Your task to perform on an android device: Open the phone app and click the voicemail tab. Image 0: 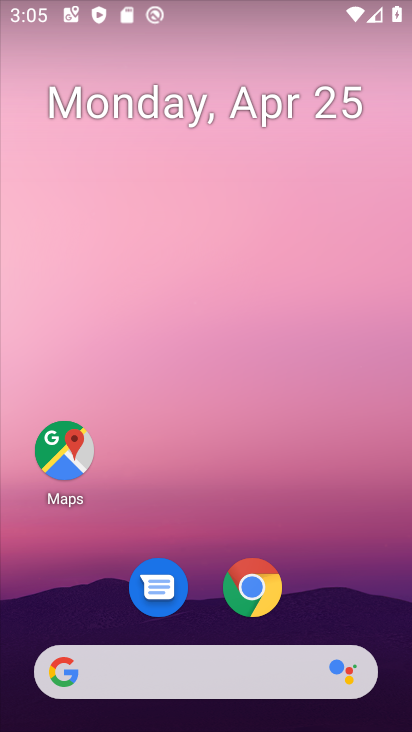
Step 0: drag from (204, 582) to (220, 126)
Your task to perform on an android device: Open the phone app and click the voicemail tab. Image 1: 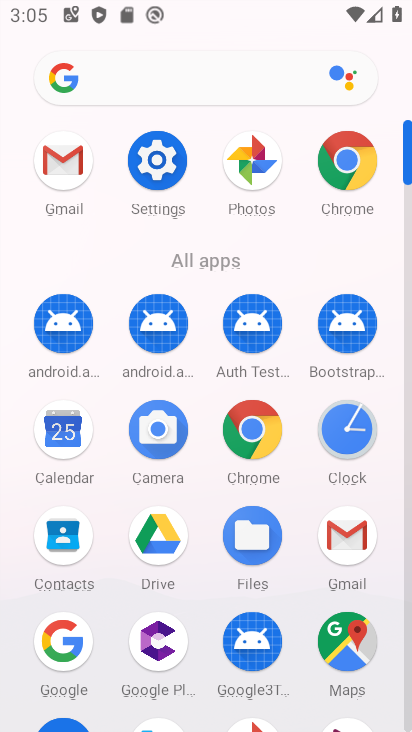
Step 1: drag from (201, 585) to (225, 205)
Your task to perform on an android device: Open the phone app and click the voicemail tab. Image 2: 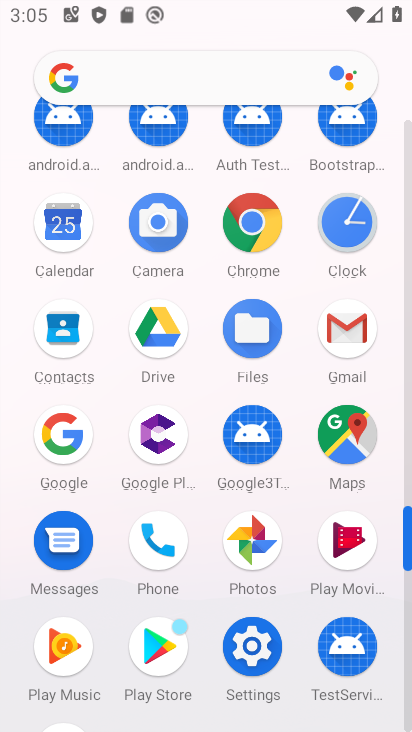
Step 2: click (158, 540)
Your task to perform on an android device: Open the phone app and click the voicemail tab. Image 3: 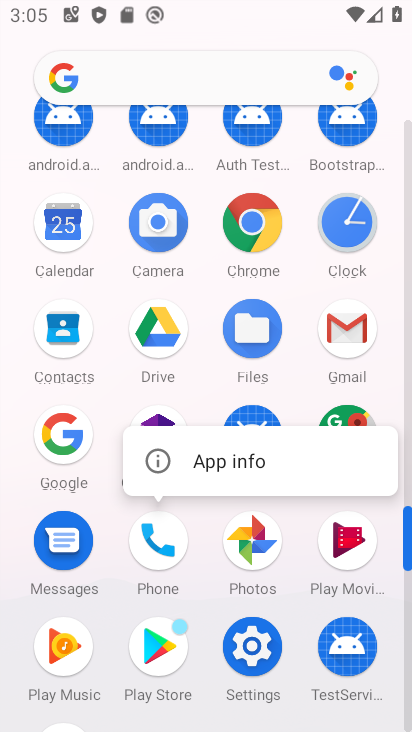
Step 3: click (164, 540)
Your task to perform on an android device: Open the phone app and click the voicemail tab. Image 4: 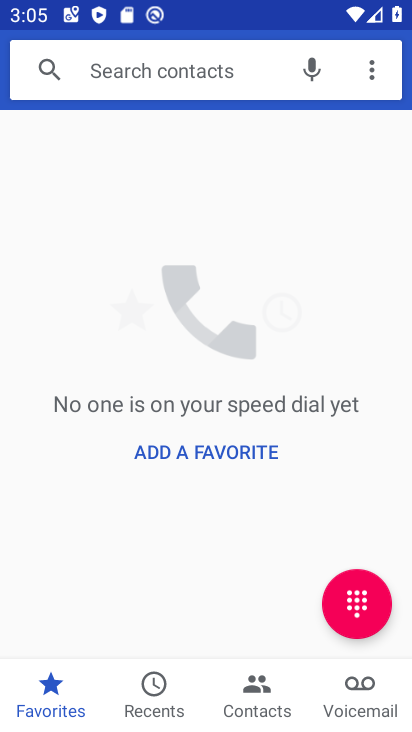
Step 4: click (367, 708)
Your task to perform on an android device: Open the phone app and click the voicemail tab. Image 5: 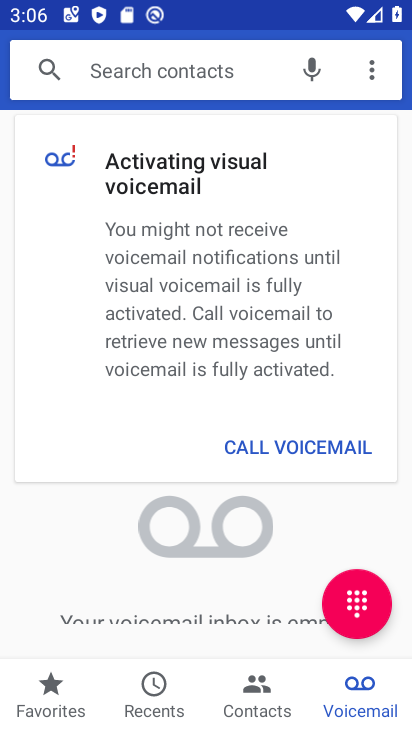
Step 5: task complete